Your task to perform on an android device: toggle show notifications on the lock screen Image 0: 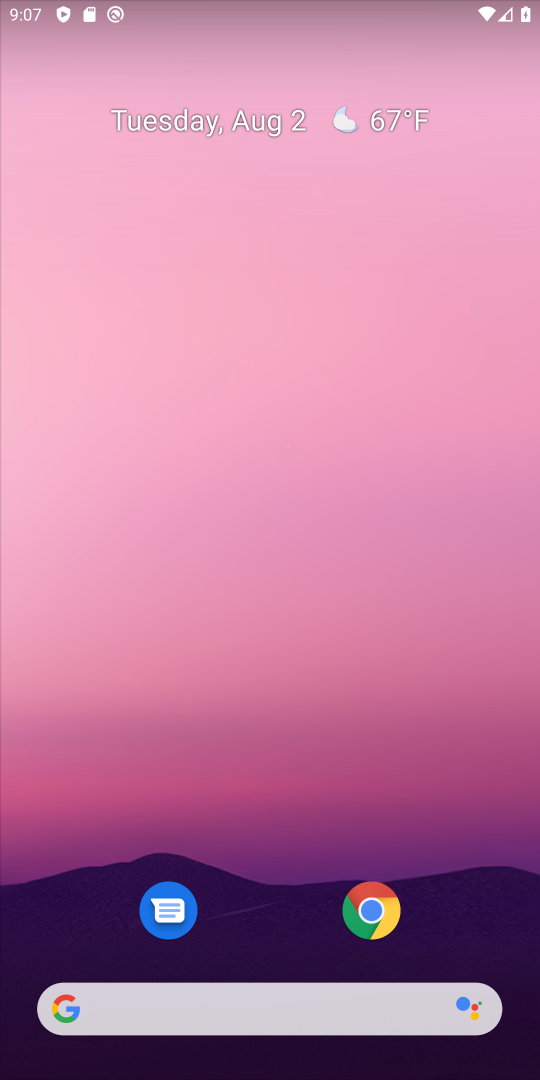
Step 0: drag from (259, 960) to (405, 204)
Your task to perform on an android device: toggle show notifications on the lock screen Image 1: 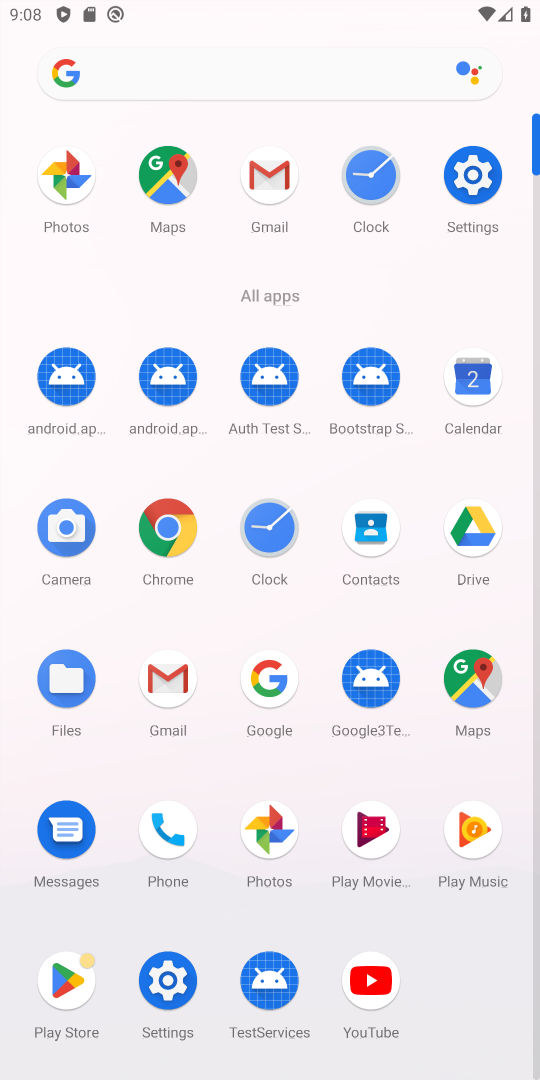
Step 1: click (180, 975)
Your task to perform on an android device: toggle show notifications on the lock screen Image 2: 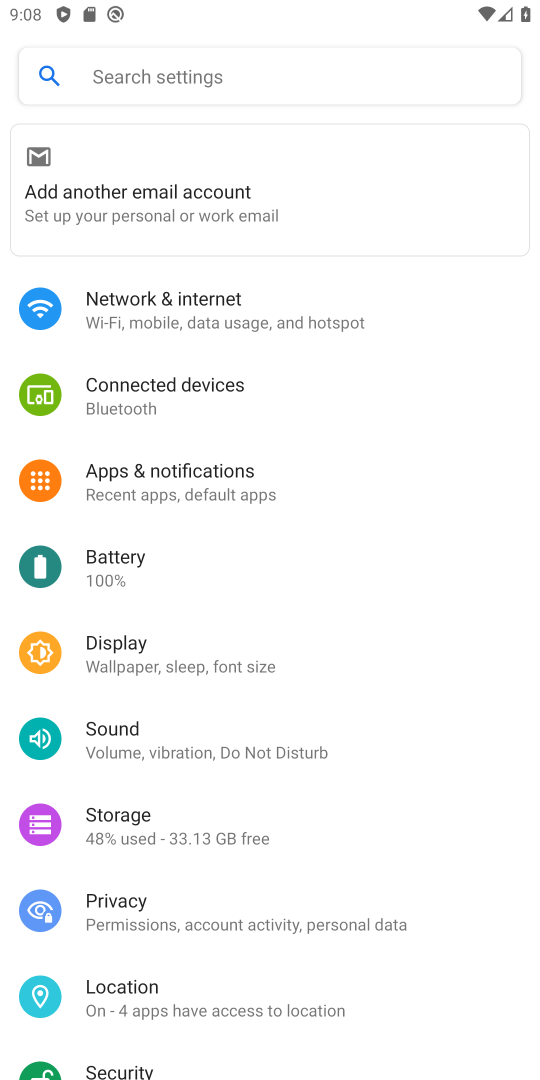
Step 2: click (218, 477)
Your task to perform on an android device: toggle show notifications on the lock screen Image 3: 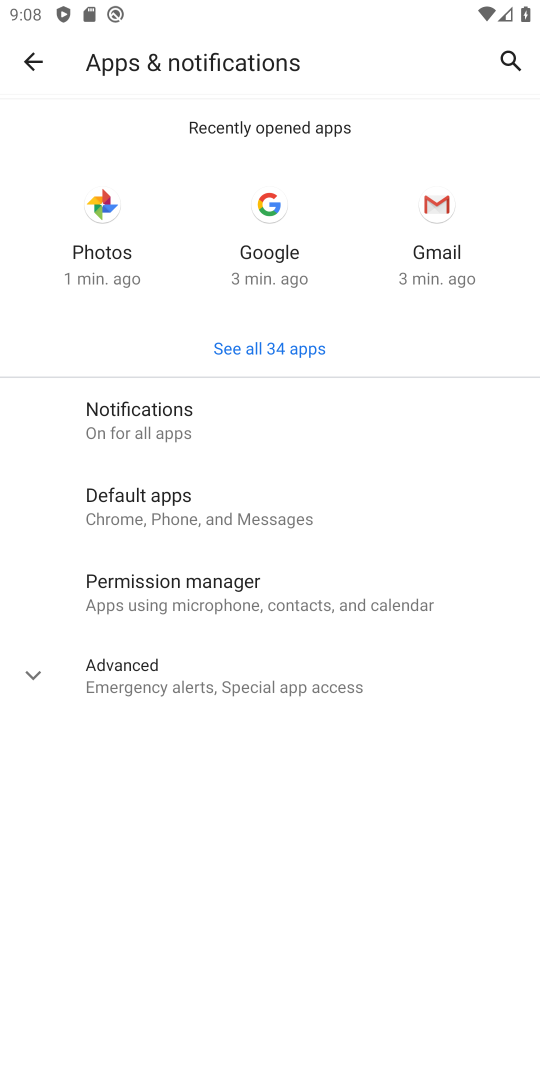
Step 3: click (168, 436)
Your task to perform on an android device: toggle show notifications on the lock screen Image 4: 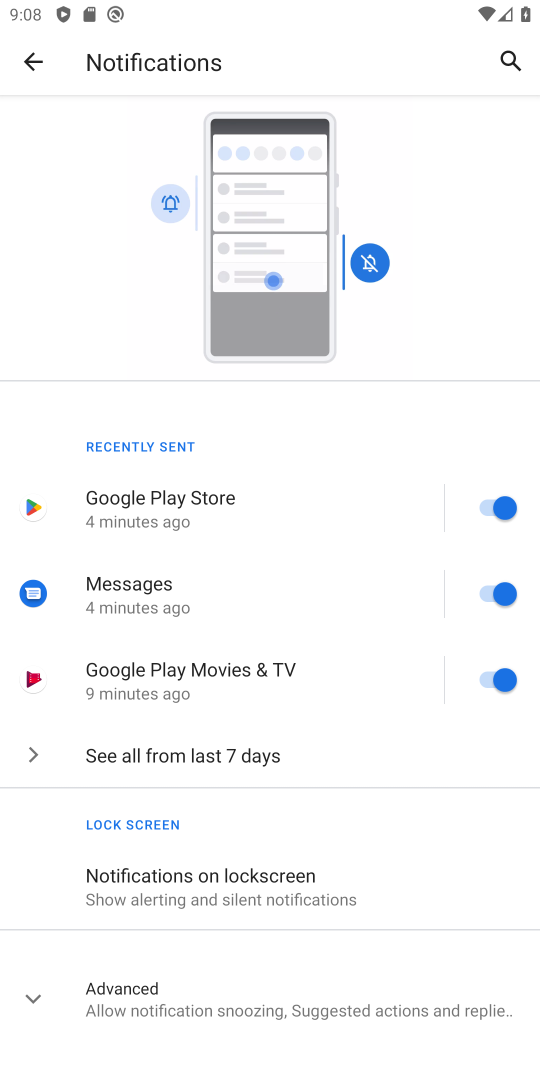
Step 4: click (223, 848)
Your task to perform on an android device: toggle show notifications on the lock screen Image 5: 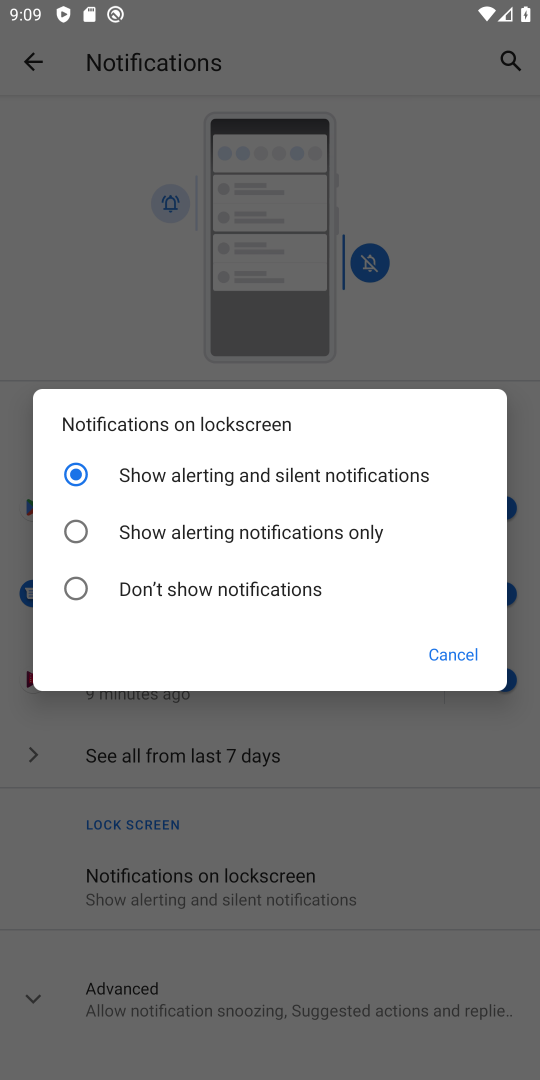
Step 5: task complete